Your task to perform on an android device: open device folders in google photos Image 0: 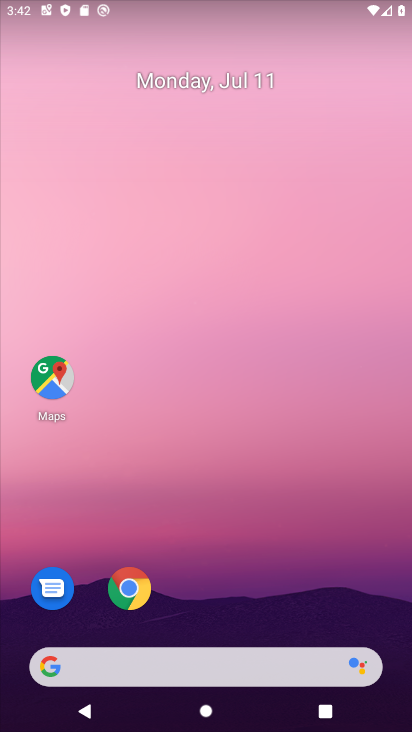
Step 0: press home button
Your task to perform on an android device: open device folders in google photos Image 1: 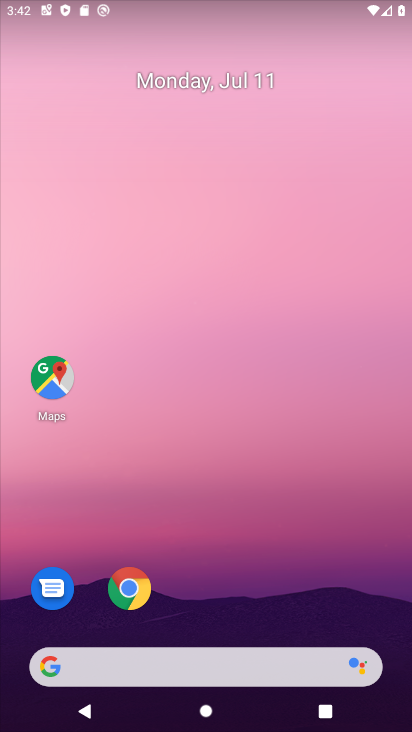
Step 1: drag from (281, 609) to (249, 159)
Your task to perform on an android device: open device folders in google photos Image 2: 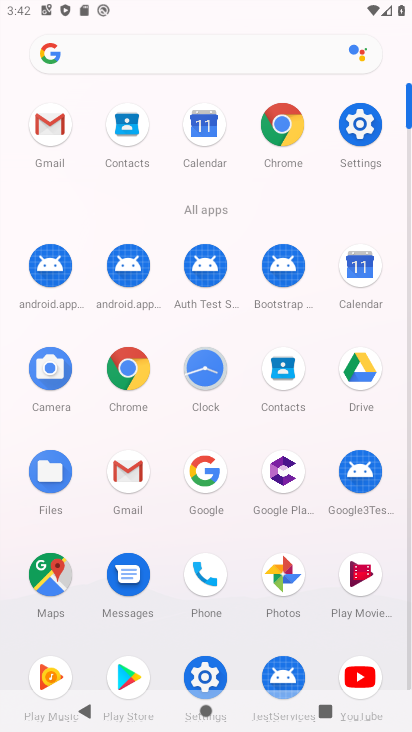
Step 2: click (280, 579)
Your task to perform on an android device: open device folders in google photos Image 3: 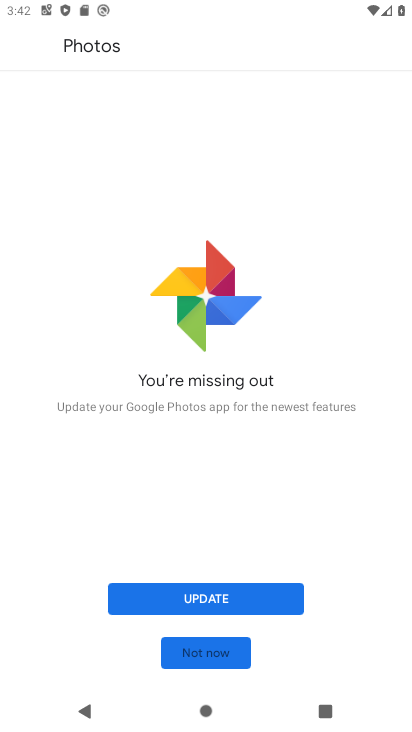
Step 3: click (221, 591)
Your task to perform on an android device: open device folders in google photos Image 4: 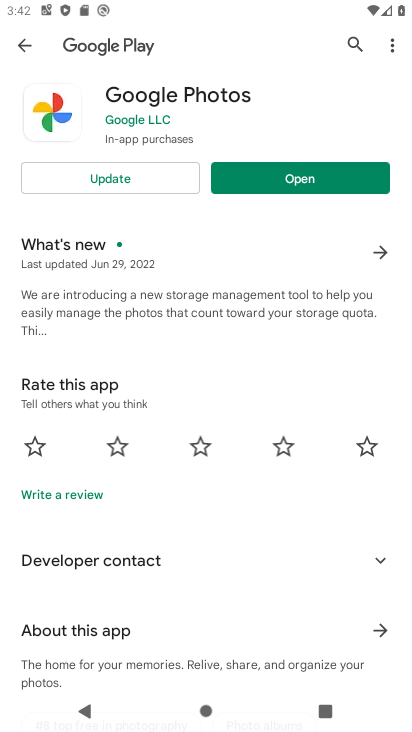
Step 4: click (115, 180)
Your task to perform on an android device: open device folders in google photos Image 5: 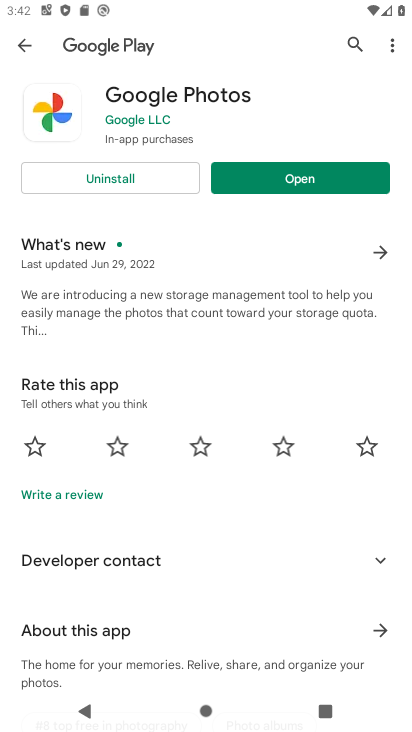
Step 5: press home button
Your task to perform on an android device: open device folders in google photos Image 6: 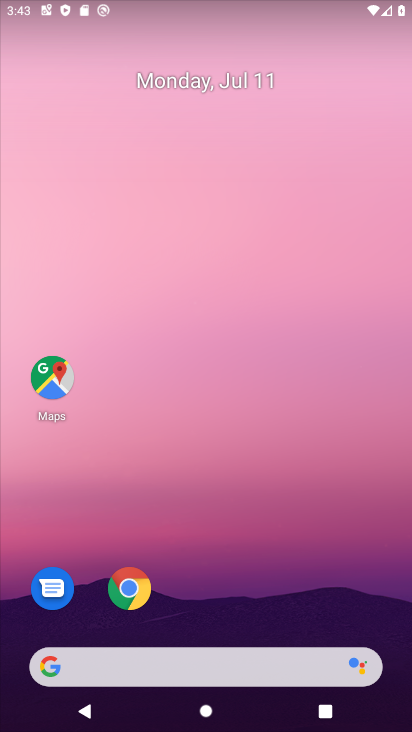
Step 6: press home button
Your task to perform on an android device: open device folders in google photos Image 7: 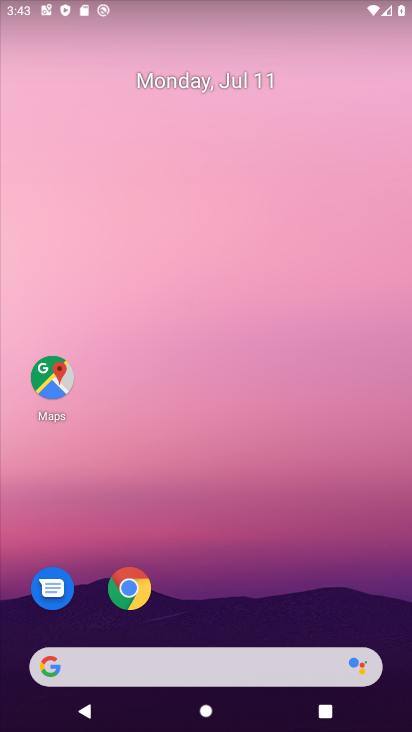
Step 7: drag from (211, 561) to (187, 79)
Your task to perform on an android device: open device folders in google photos Image 8: 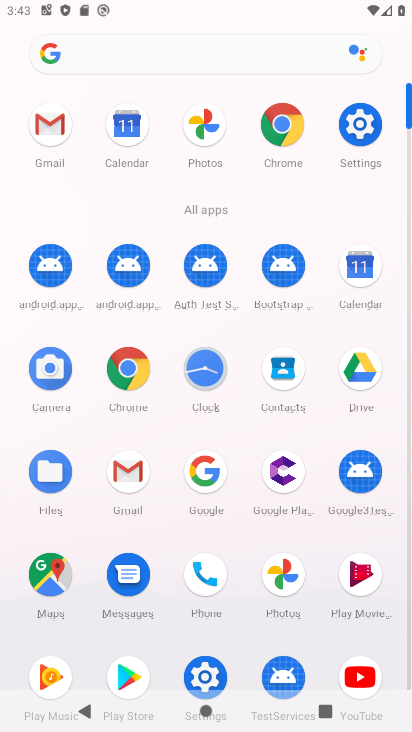
Step 8: click (276, 581)
Your task to perform on an android device: open device folders in google photos Image 9: 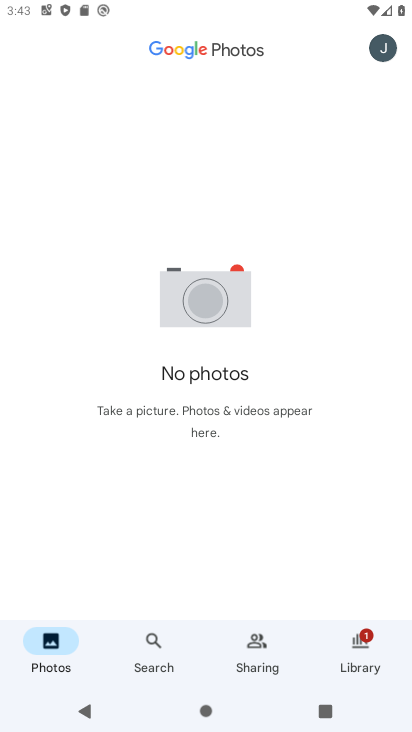
Step 9: click (156, 645)
Your task to perform on an android device: open device folders in google photos Image 10: 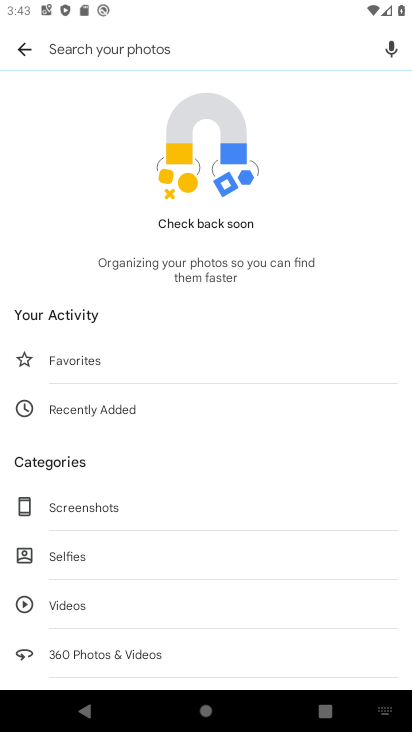
Step 10: type "device folders"
Your task to perform on an android device: open device folders in google photos Image 11: 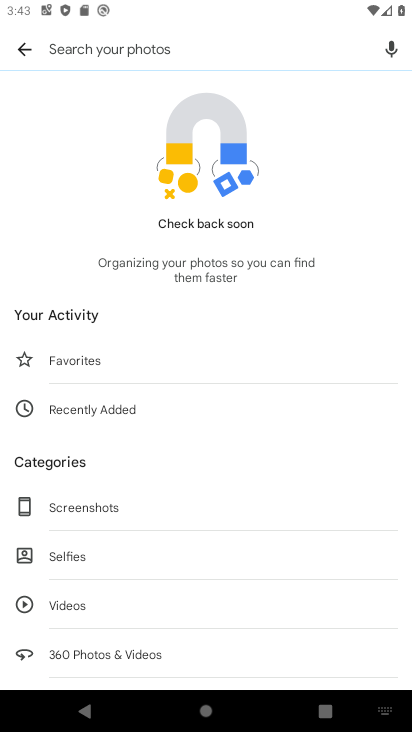
Step 11: click (104, 43)
Your task to perform on an android device: open device folders in google photos Image 12: 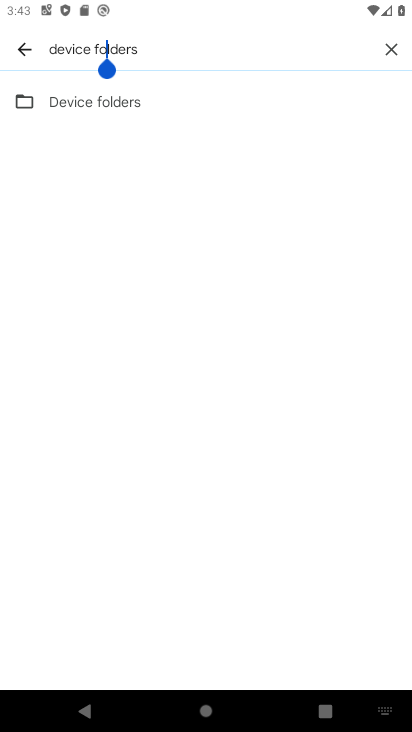
Step 12: click (91, 103)
Your task to perform on an android device: open device folders in google photos Image 13: 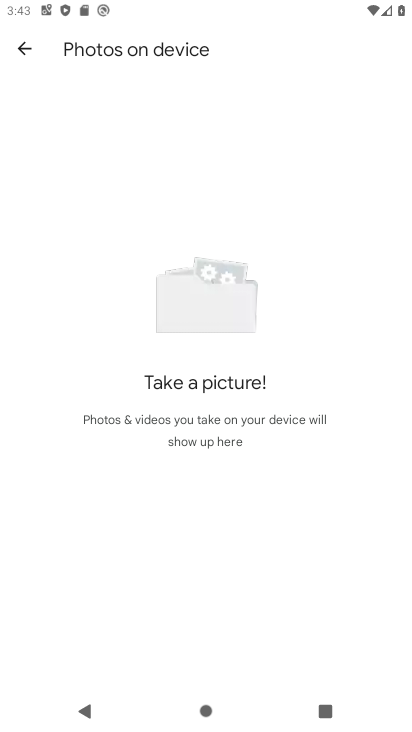
Step 13: task complete